Your task to perform on an android device: toggle wifi Image 0: 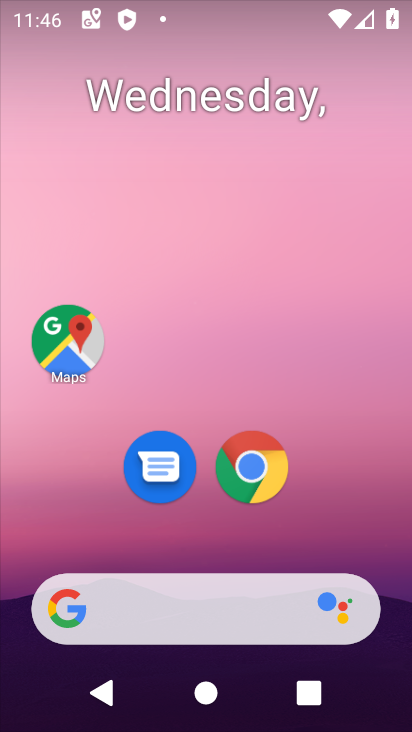
Step 0: drag from (170, 614) to (305, 117)
Your task to perform on an android device: toggle wifi Image 1: 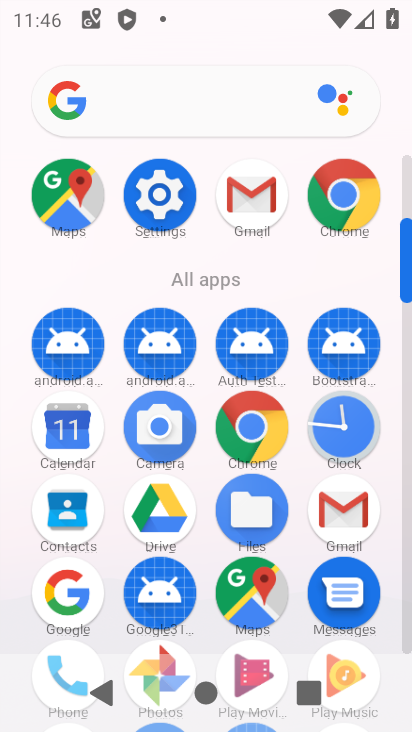
Step 1: click (175, 199)
Your task to perform on an android device: toggle wifi Image 2: 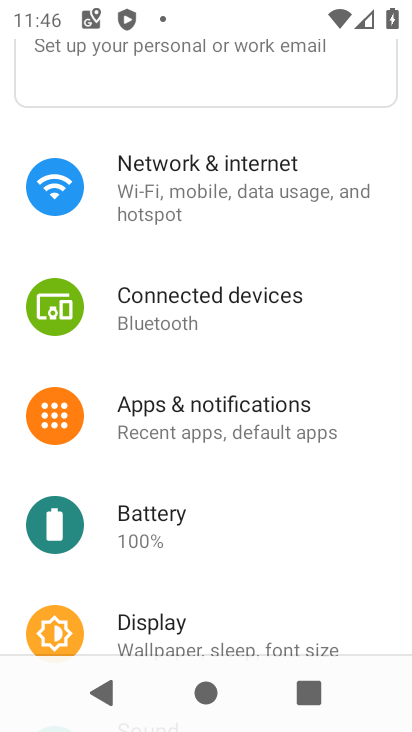
Step 2: click (254, 182)
Your task to perform on an android device: toggle wifi Image 3: 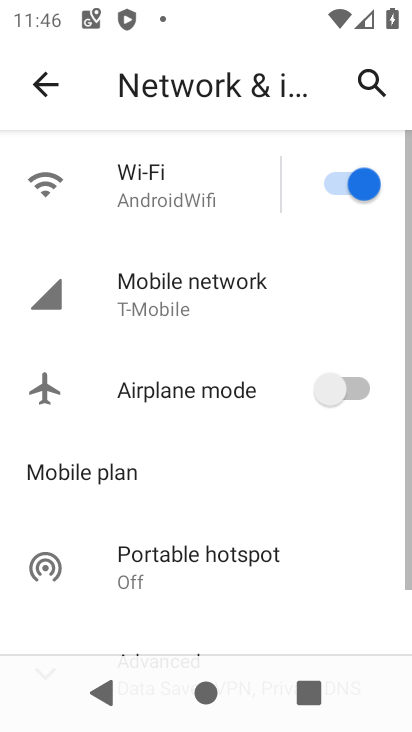
Step 3: click (339, 182)
Your task to perform on an android device: toggle wifi Image 4: 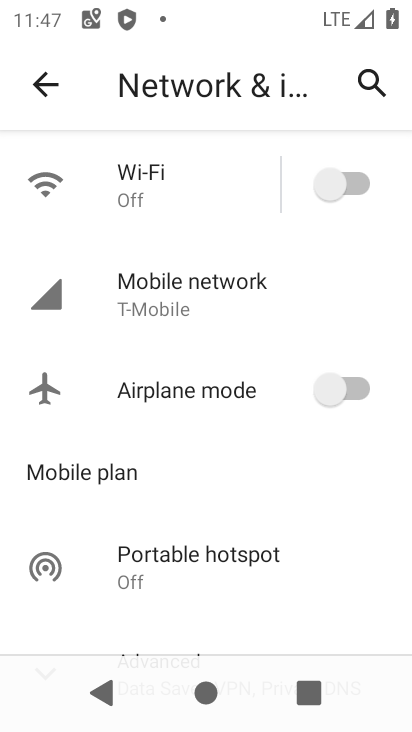
Step 4: task complete